Your task to perform on an android device: Go to network settings Image 0: 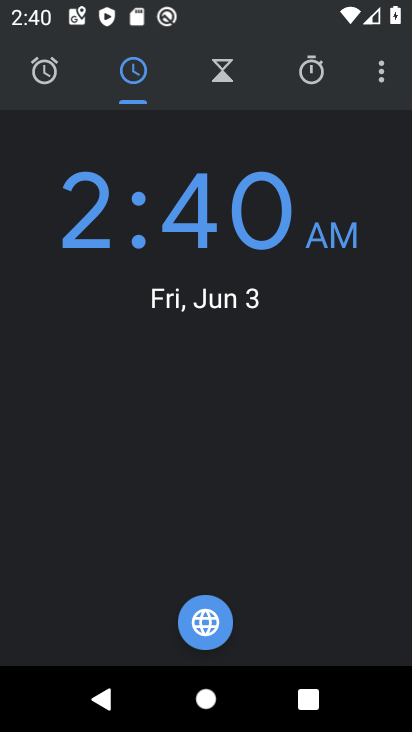
Step 0: press back button
Your task to perform on an android device: Go to network settings Image 1: 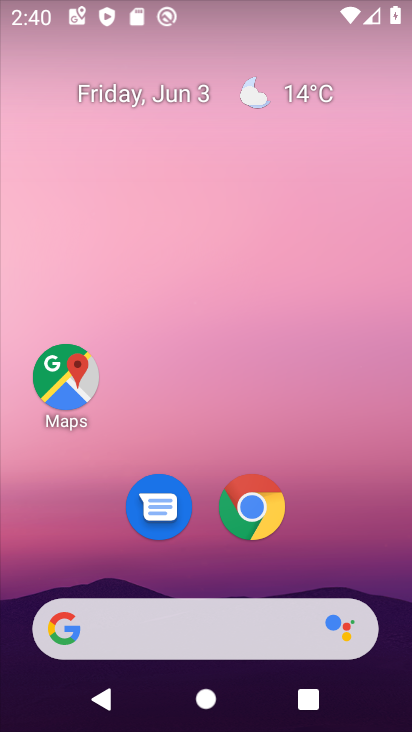
Step 1: drag from (325, 539) to (229, 180)
Your task to perform on an android device: Go to network settings Image 2: 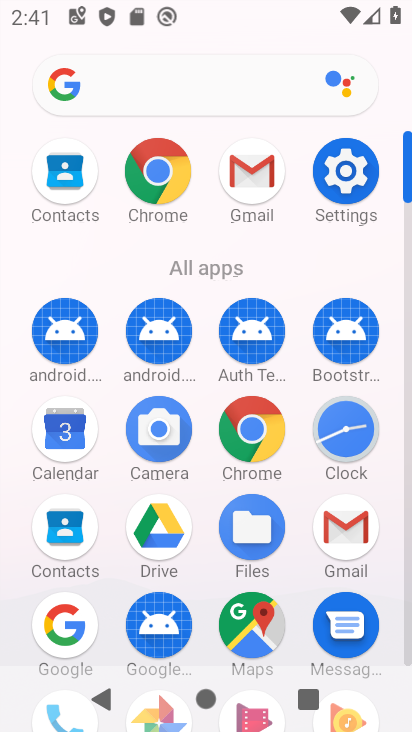
Step 2: click (345, 172)
Your task to perform on an android device: Go to network settings Image 3: 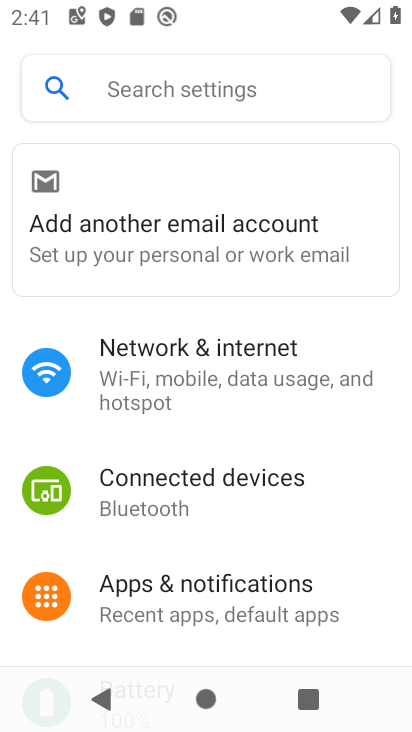
Step 3: drag from (192, 427) to (234, 344)
Your task to perform on an android device: Go to network settings Image 4: 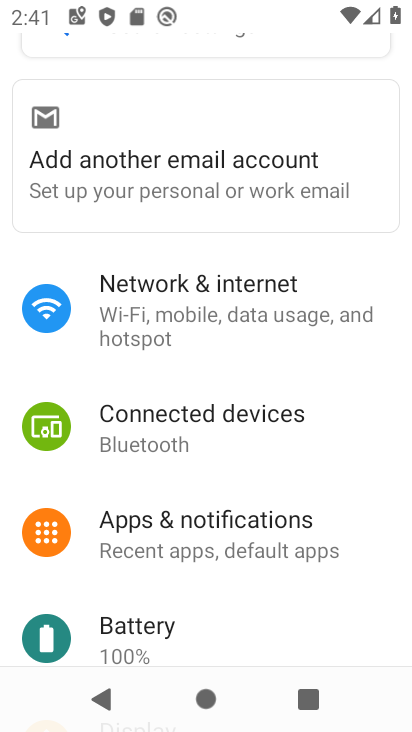
Step 4: click (251, 284)
Your task to perform on an android device: Go to network settings Image 5: 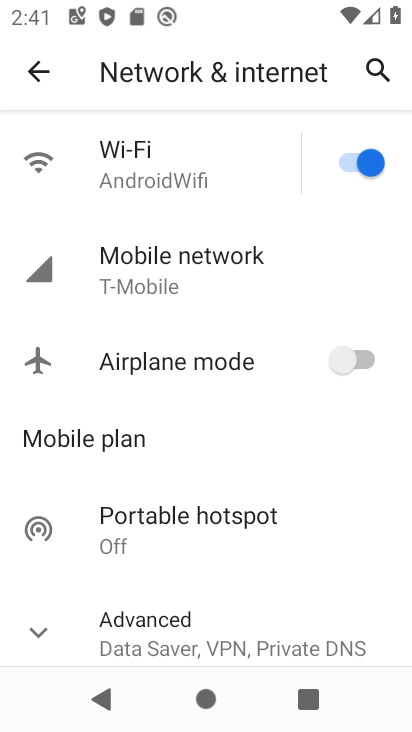
Step 5: click (219, 266)
Your task to perform on an android device: Go to network settings Image 6: 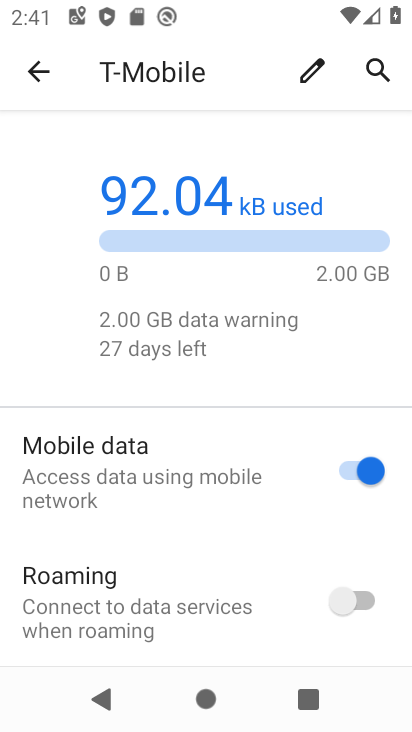
Step 6: task complete